Your task to perform on an android device: turn off wifi Image 0: 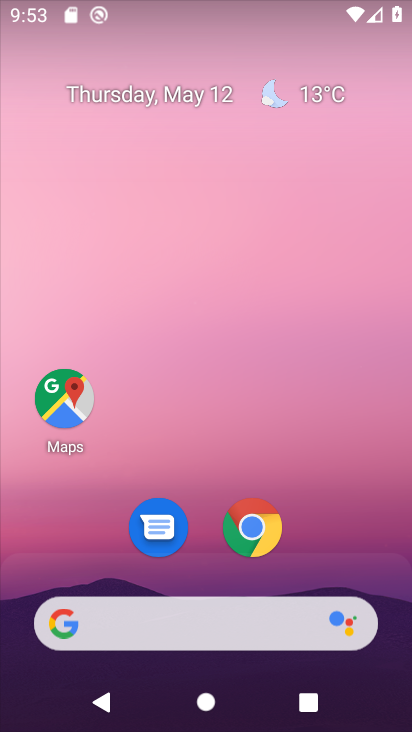
Step 0: drag from (342, 559) to (193, 56)
Your task to perform on an android device: turn off wifi Image 1: 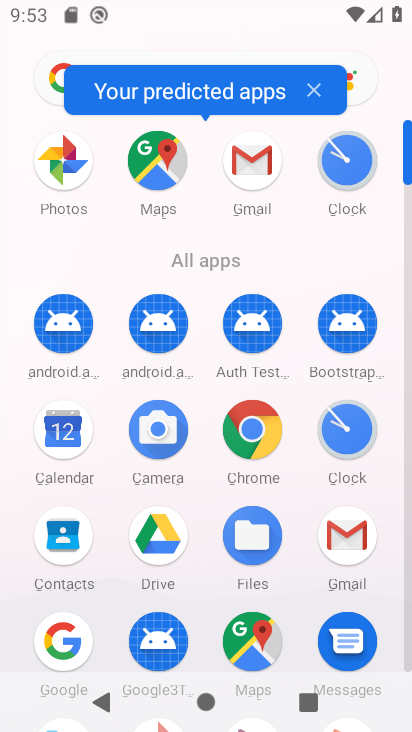
Step 1: drag from (129, 528) to (112, 199)
Your task to perform on an android device: turn off wifi Image 2: 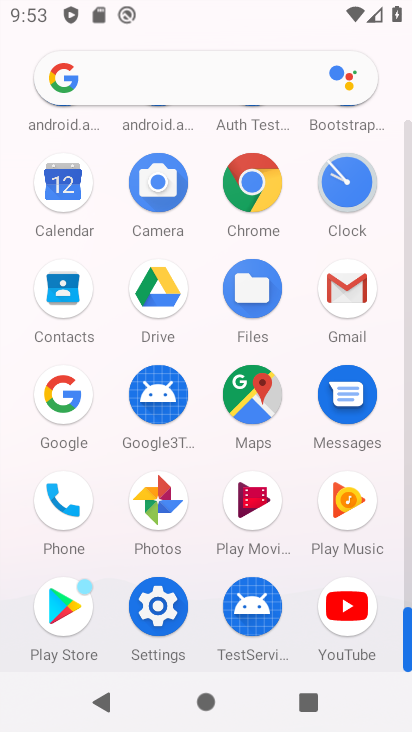
Step 2: click (154, 608)
Your task to perform on an android device: turn off wifi Image 3: 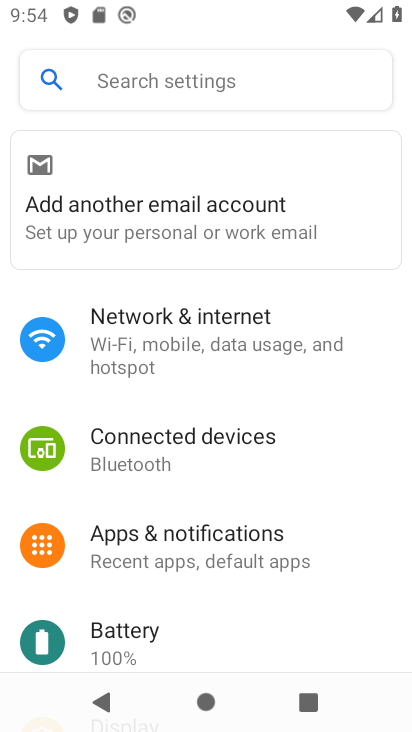
Step 3: drag from (211, 406) to (229, 307)
Your task to perform on an android device: turn off wifi Image 4: 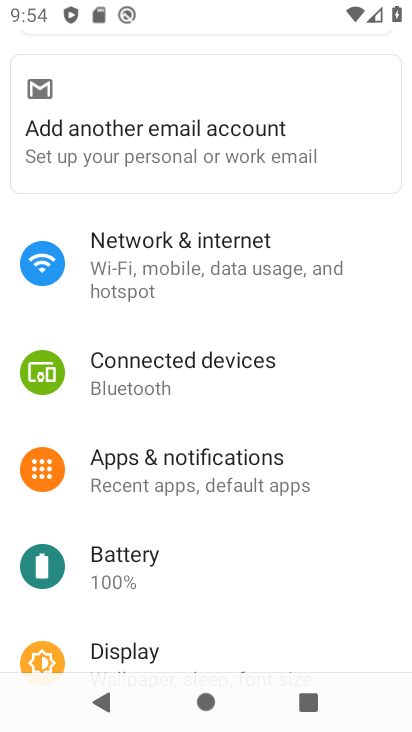
Step 4: click (201, 257)
Your task to perform on an android device: turn off wifi Image 5: 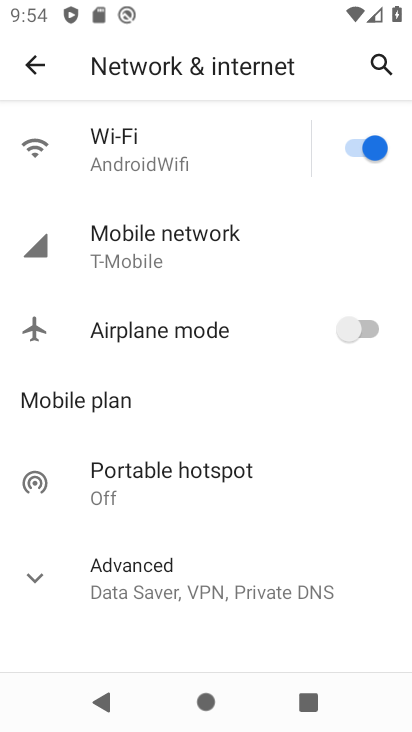
Step 5: click (363, 148)
Your task to perform on an android device: turn off wifi Image 6: 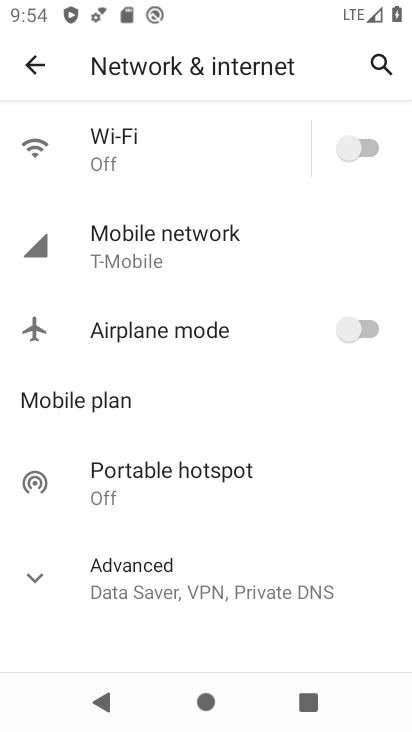
Step 6: task complete